Your task to perform on an android device: Open Android settings Image 0: 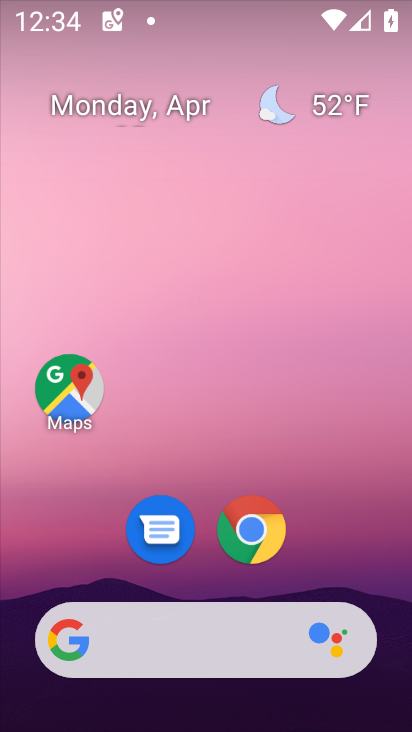
Step 0: drag from (393, 501) to (380, 184)
Your task to perform on an android device: Open Android settings Image 1: 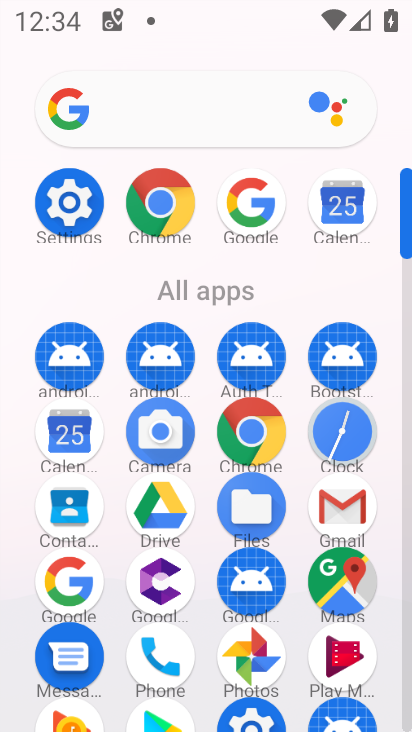
Step 1: click (80, 203)
Your task to perform on an android device: Open Android settings Image 2: 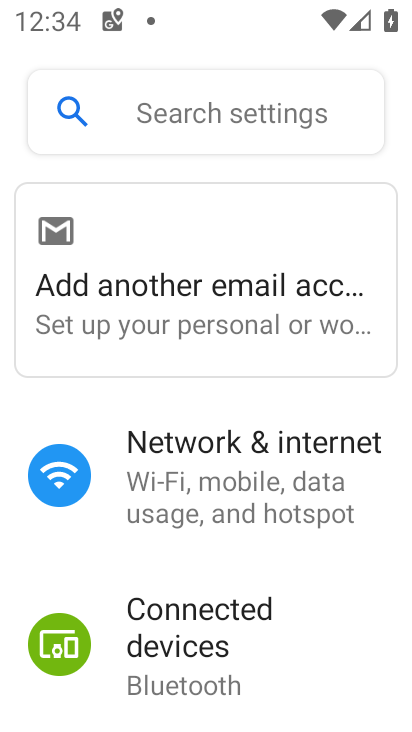
Step 2: drag from (354, 664) to (344, 277)
Your task to perform on an android device: Open Android settings Image 3: 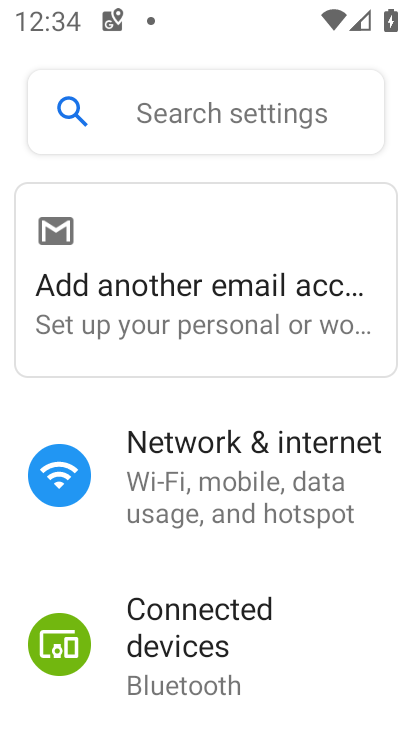
Step 3: drag from (382, 683) to (369, 281)
Your task to perform on an android device: Open Android settings Image 4: 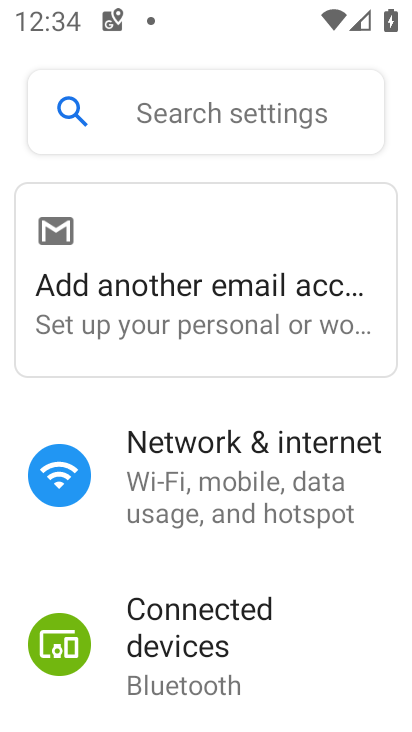
Step 4: click (299, 255)
Your task to perform on an android device: Open Android settings Image 5: 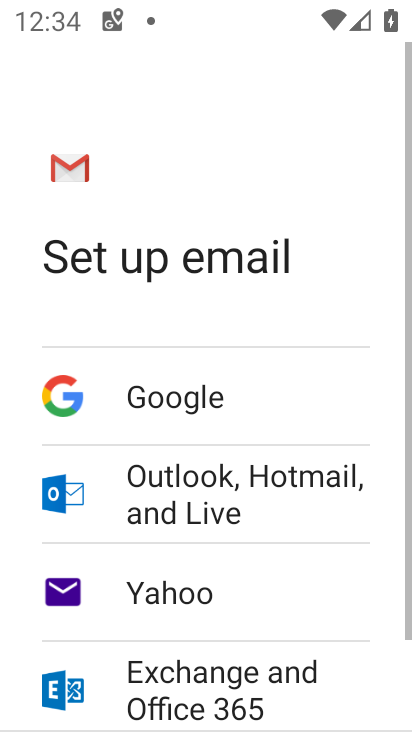
Step 5: task complete